Your task to perform on an android device: Toggle the flashlight Image 0: 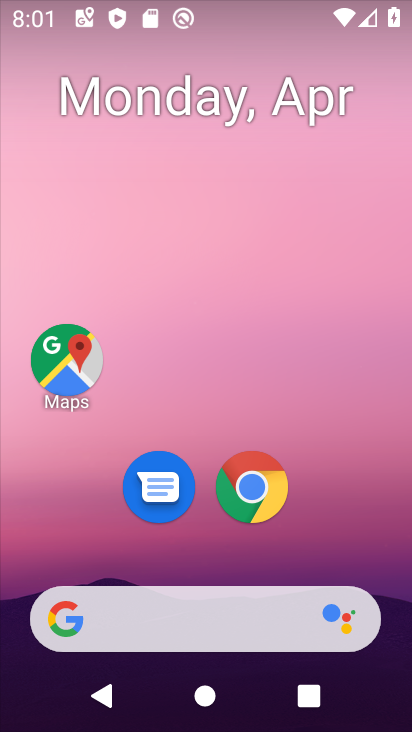
Step 0: drag from (226, 5) to (222, 435)
Your task to perform on an android device: Toggle the flashlight Image 1: 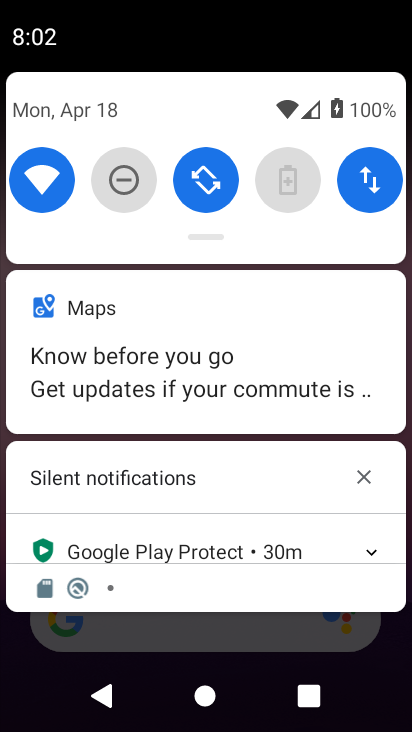
Step 1: drag from (246, 133) to (227, 425)
Your task to perform on an android device: Toggle the flashlight Image 2: 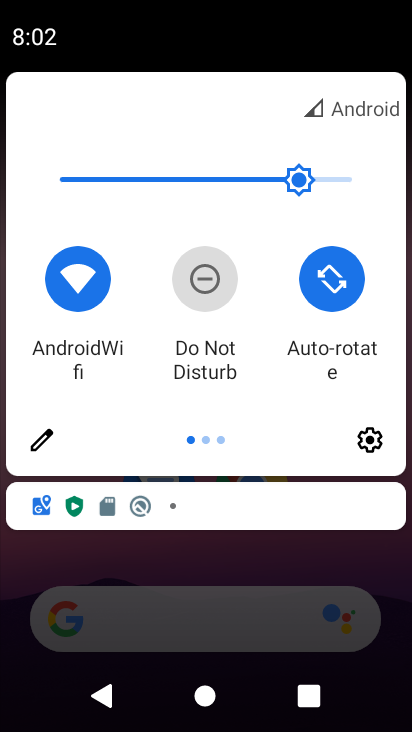
Step 2: click (42, 442)
Your task to perform on an android device: Toggle the flashlight Image 3: 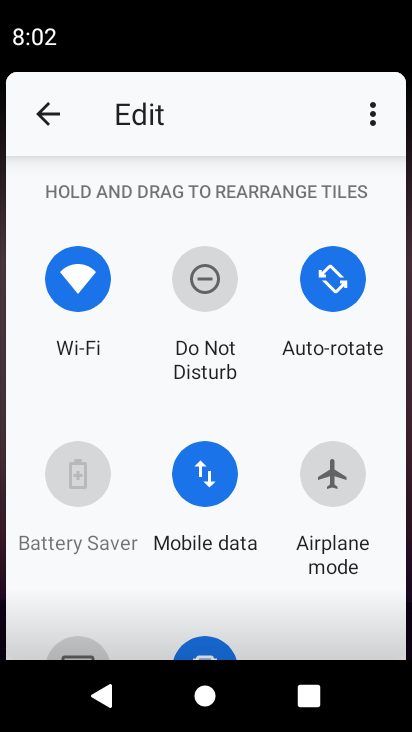
Step 3: task complete